Your task to perform on an android device: open app "Booking.com: Hotels and more" (install if not already installed) Image 0: 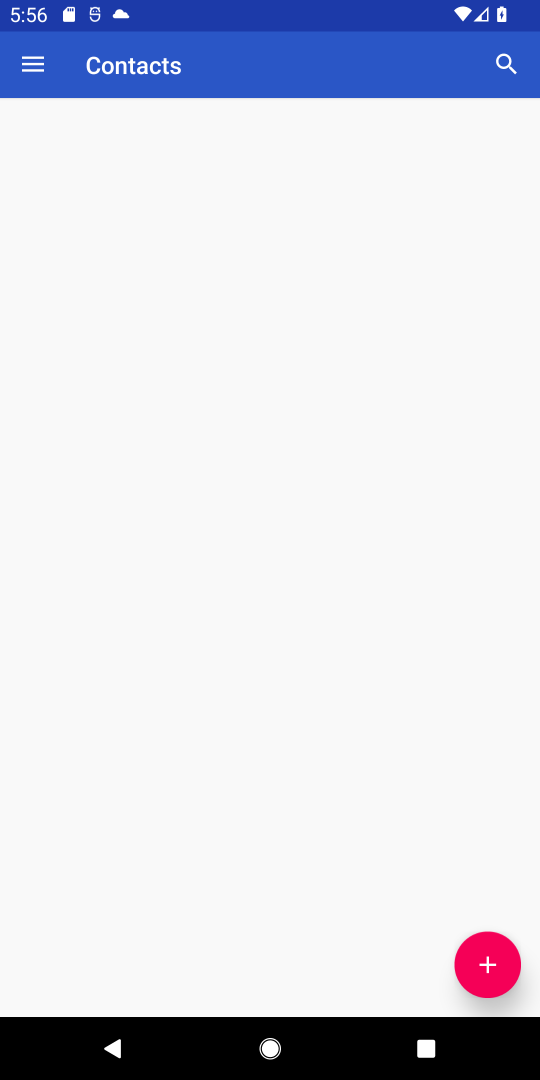
Step 0: press home button
Your task to perform on an android device: open app "Booking.com: Hotels and more" (install if not already installed) Image 1: 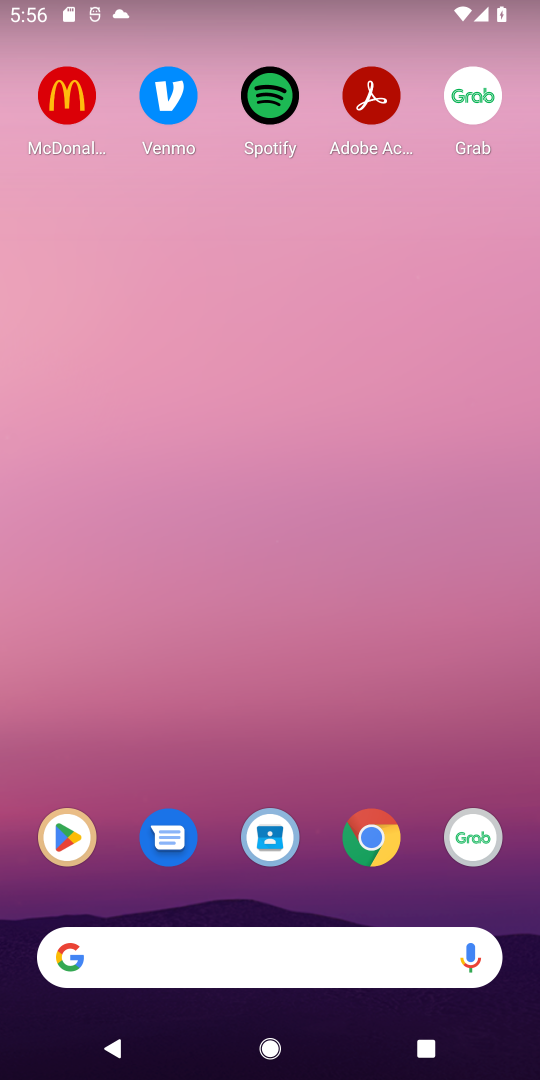
Step 1: click (51, 843)
Your task to perform on an android device: open app "Booking.com: Hotels and more" (install if not already installed) Image 2: 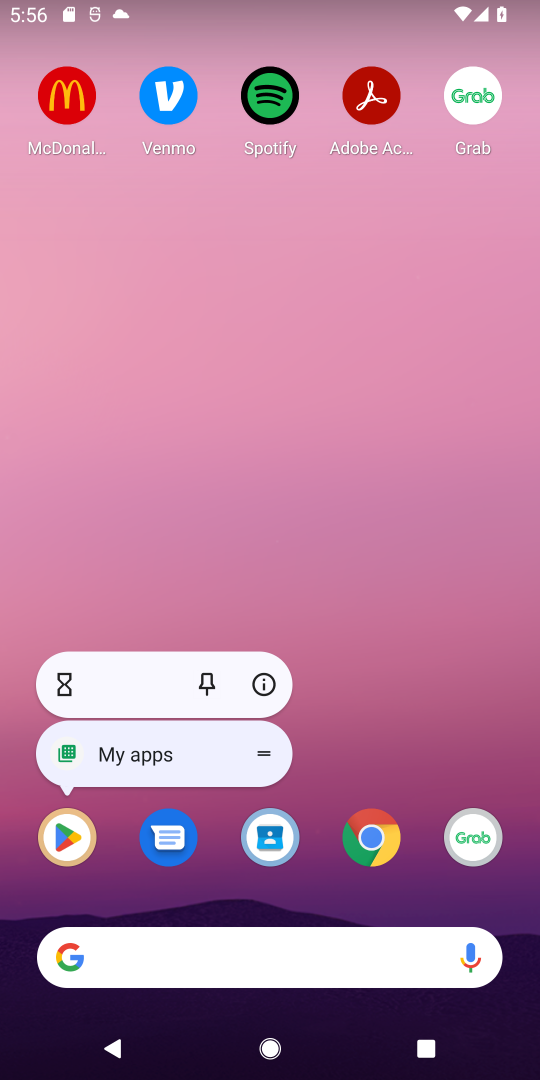
Step 2: click (51, 843)
Your task to perform on an android device: open app "Booking.com: Hotels and more" (install if not already installed) Image 3: 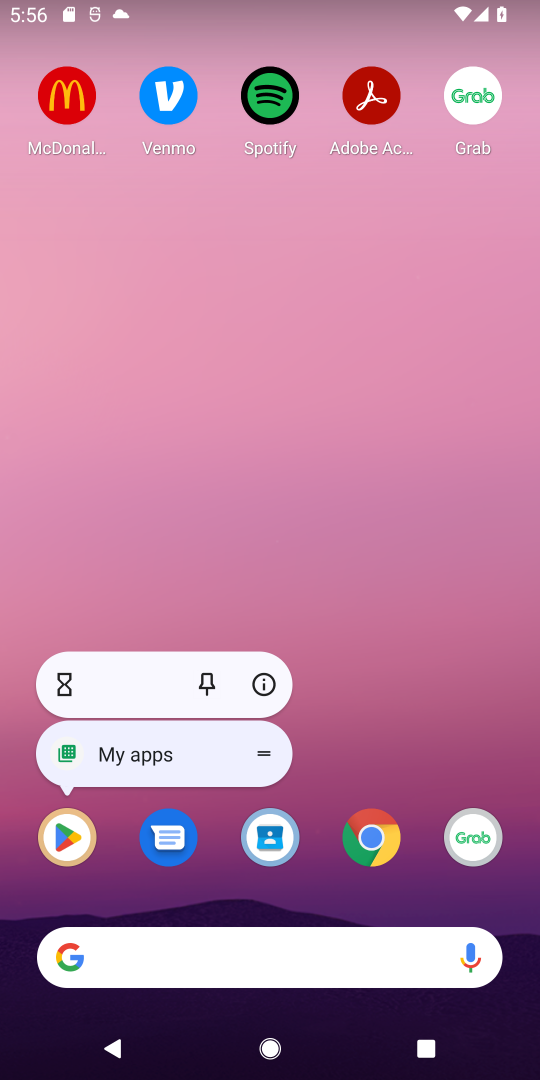
Step 3: click (51, 843)
Your task to perform on an android device: open app "Booking.com: Hotels and more" (install if not already installed) Image 4: 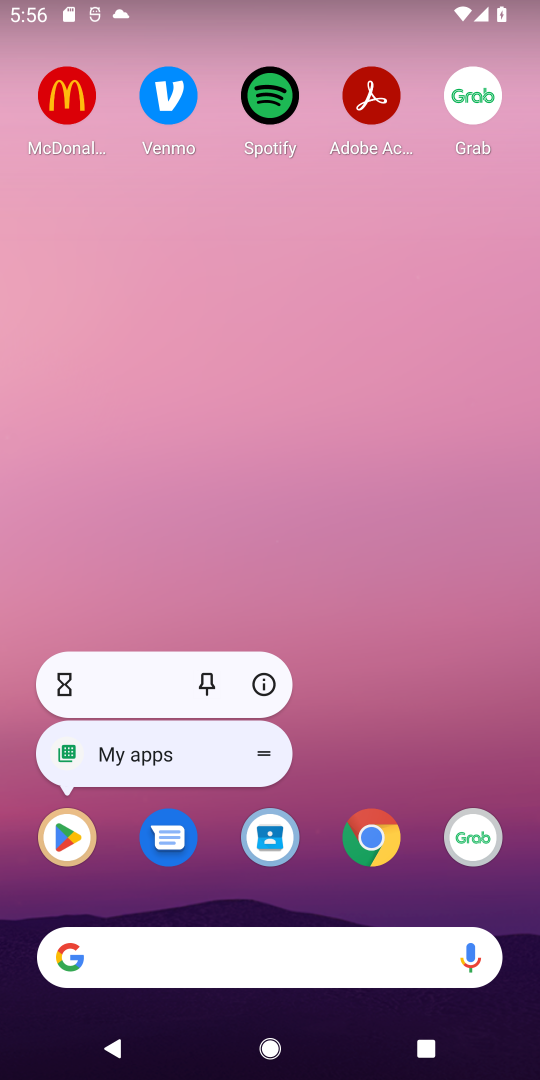
Step 4: click (51, 843)
Your task to perform on an android device: open app "Booking.com: Hotels and more" (install if not already installed) Image 5: 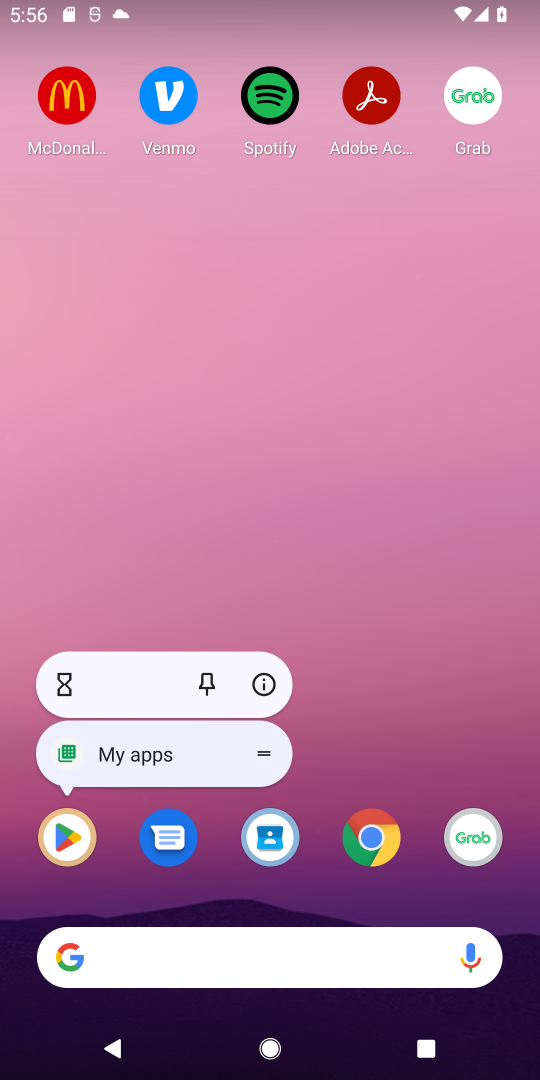
Step 5: click (51, 840)
Your task to perform on an android device: open app "Booking.com: Hotels and more" (install if not already installed) Image 6: 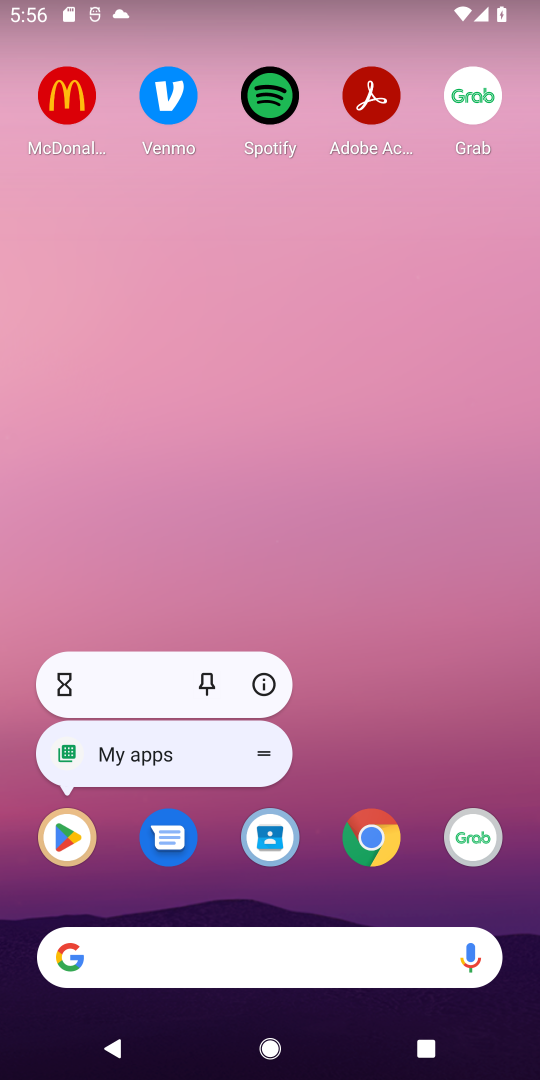
Step 6: click (68, 818)
Your task to perform on an android device: open app "Booking.com: Hotels and more" (install if not already installed) Image 7: 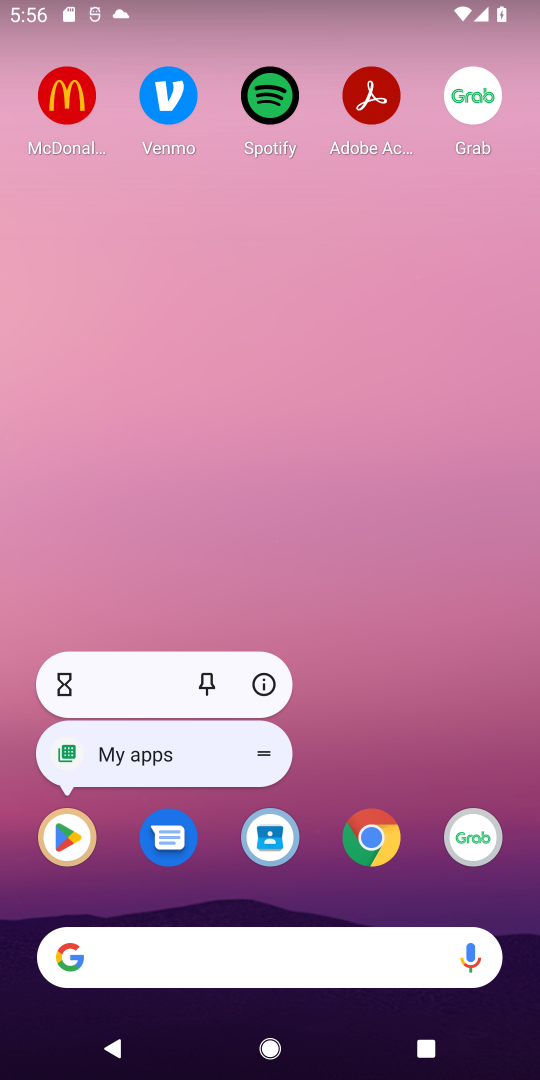
Step 7: click (77, 835)
Your task to perform on an android device: open app "Booking.com: Hotels and more" (install if not already installed) Image 8: 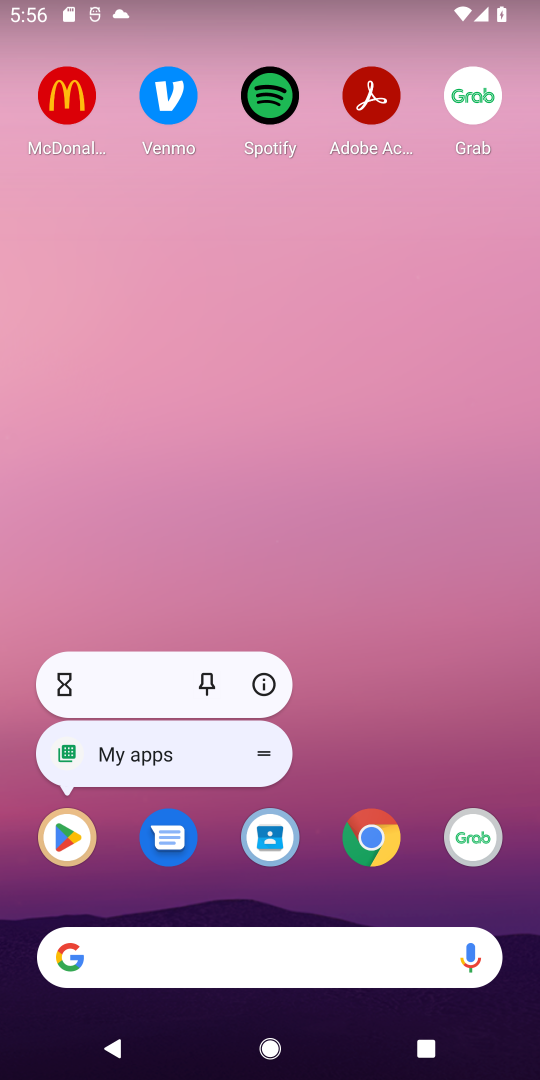
Step 8: click (77, 835)
Your task to perform on an android device: open app "Booking.com: Hotels and more" (install if not already installed) Image 9: 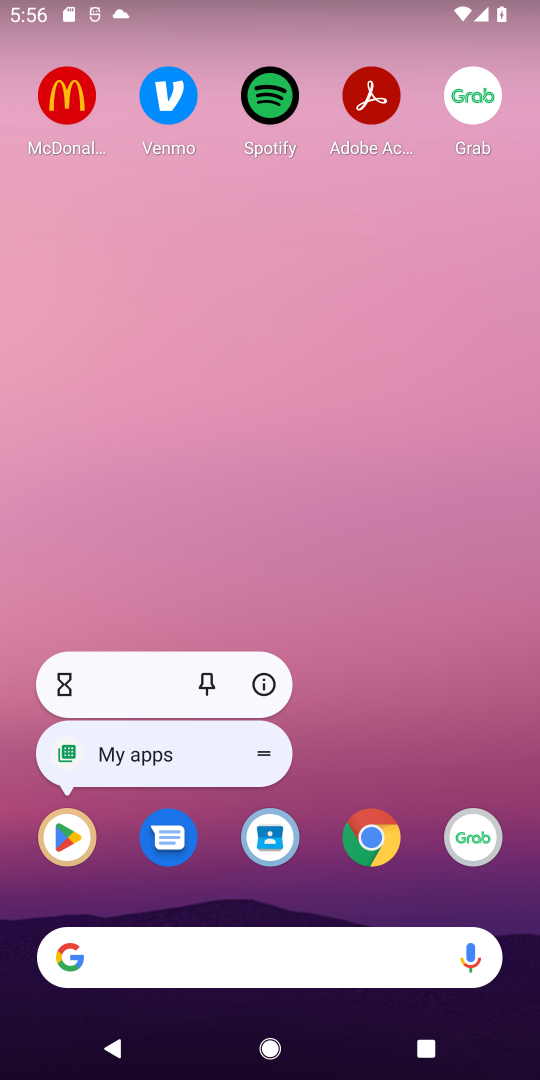
Step 9: click (77, 835)
Your task to perform on an android device: open app "Booking.com: Hotels and more" (install if not already installed) Image 10: 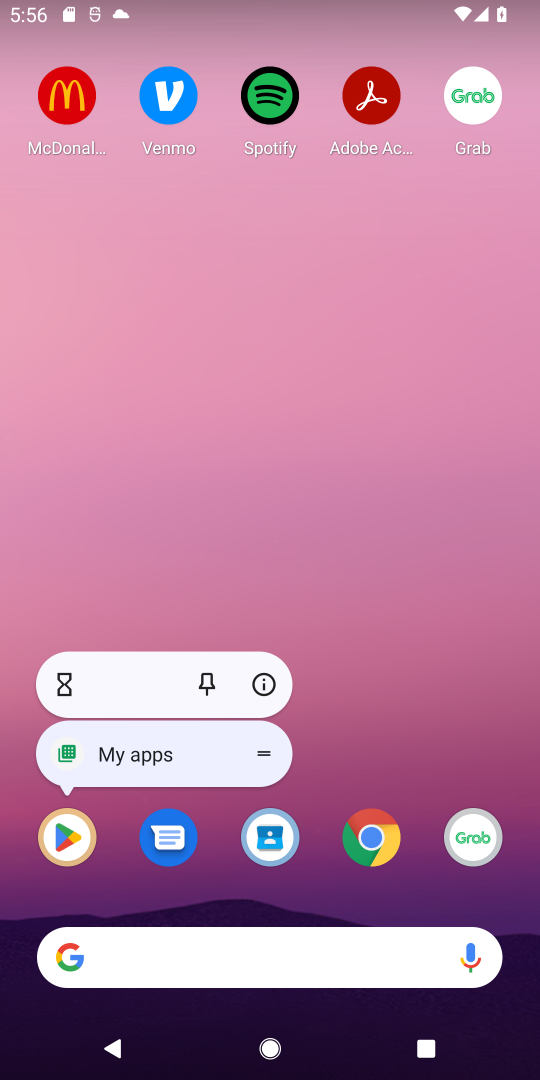
Step 10: click (77, 835)
Your task to perform on an android device: open app "Booking.com: Hotels and more" (install if not already installed) Image 11: 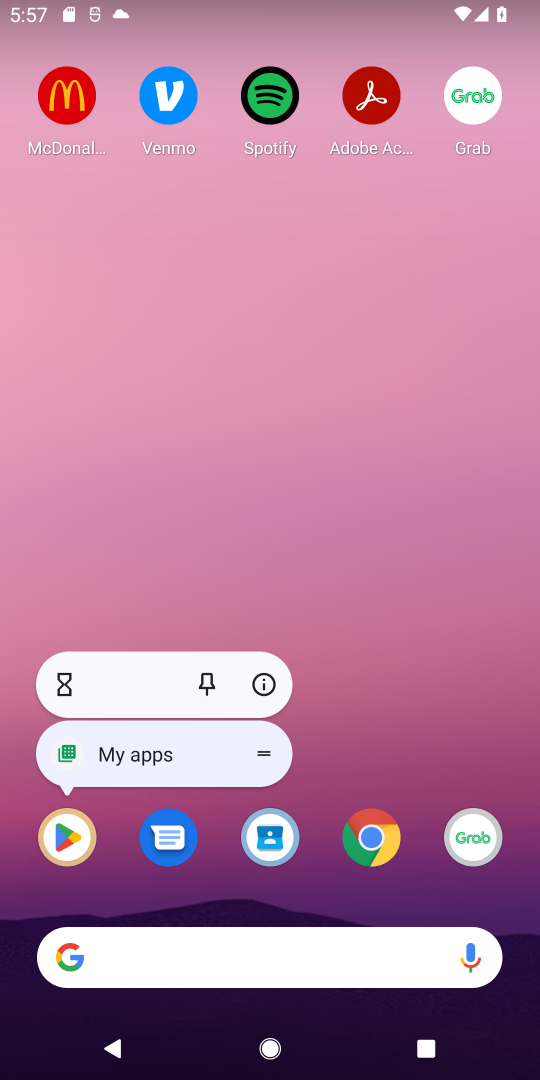
Step 11: click (73, 836)
Your task to perform on an android device: open app "Booking.com: Hotels and more" (install if not already installed) Image 12: 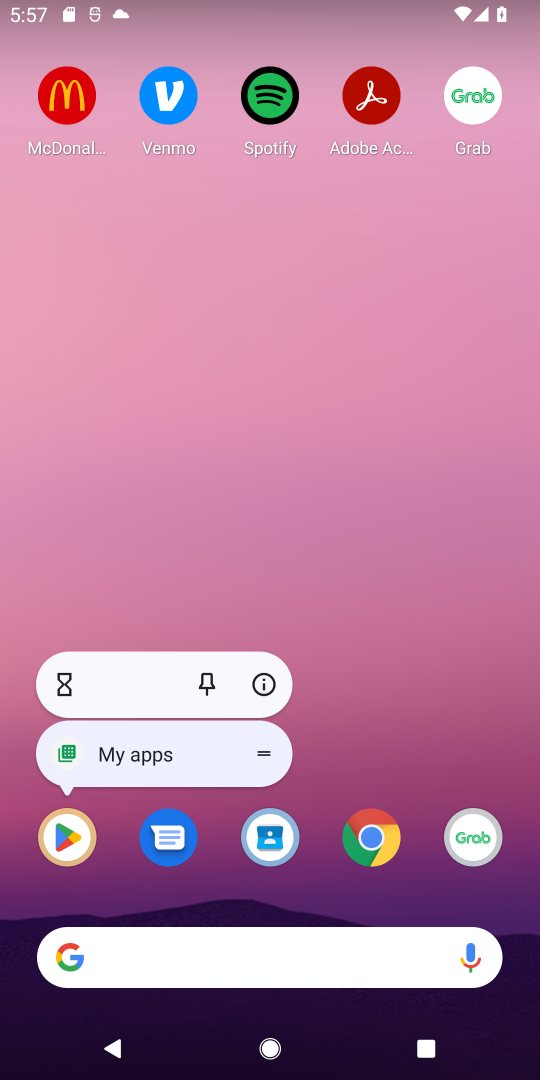
Step 12: click (73, 836)
Your task to perform on an android device: open app "Booking.com: Hotels and more" (install if not already installed) Image 13: 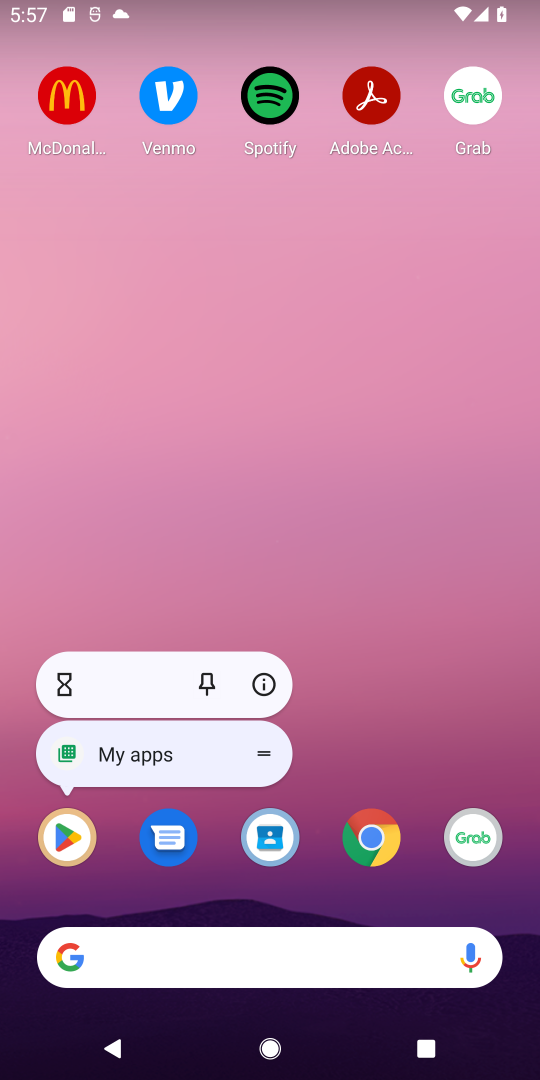
Step 13: click (73, 836)
Your task to perform on an android device: open app "Booking.com: Hotels and more" (install if not already installed) Image 14: 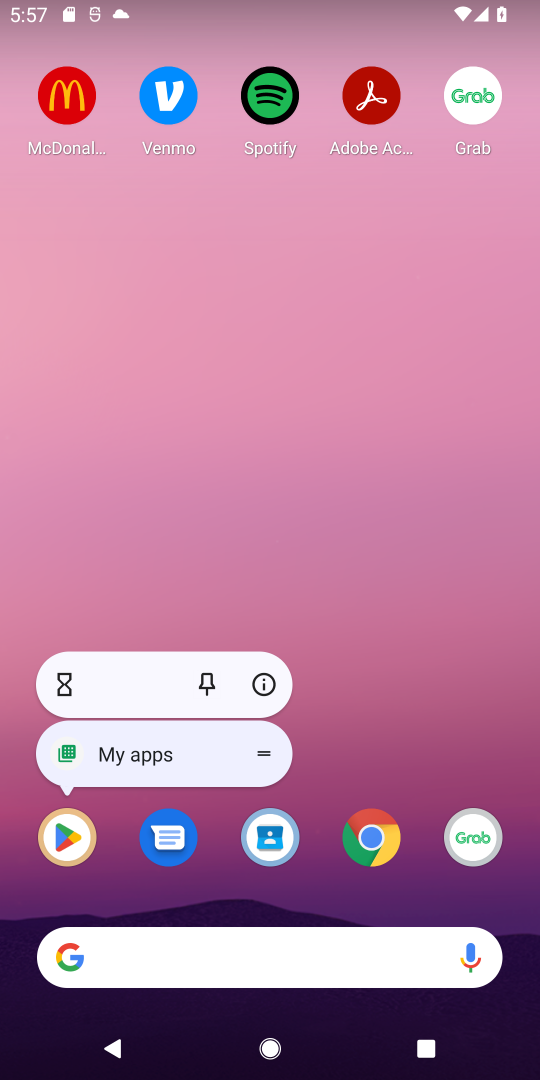
Step 14: click (73, 836)
Your task to perform on an android device: open app "Booking.com: Hotels and more" (install if not already installed) Image 15: 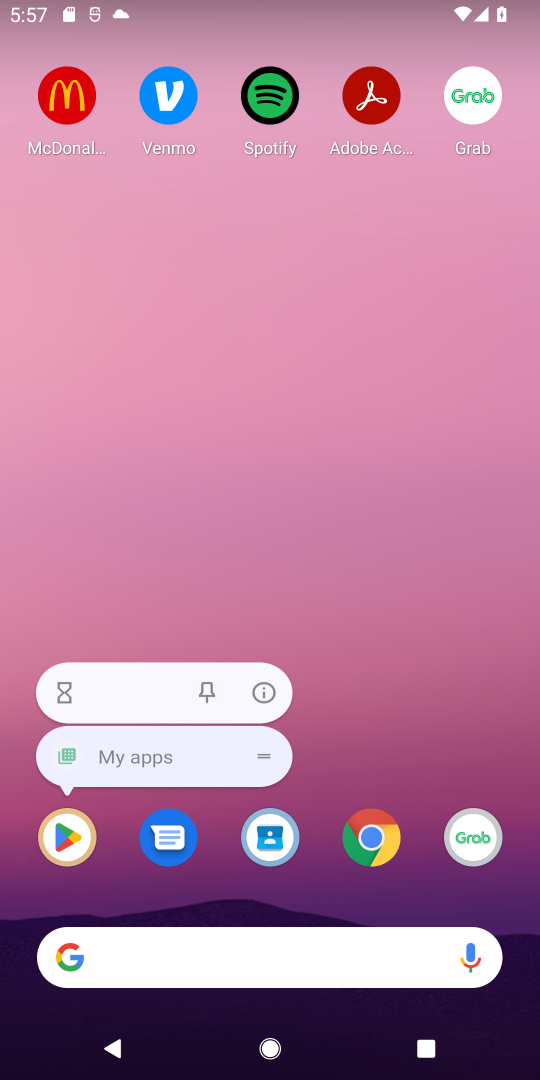
Step 15: click (73, 836)
Your task to perform on an android device: open app "Booking.com: Hotels and more" (install if not already installed) Image 16: 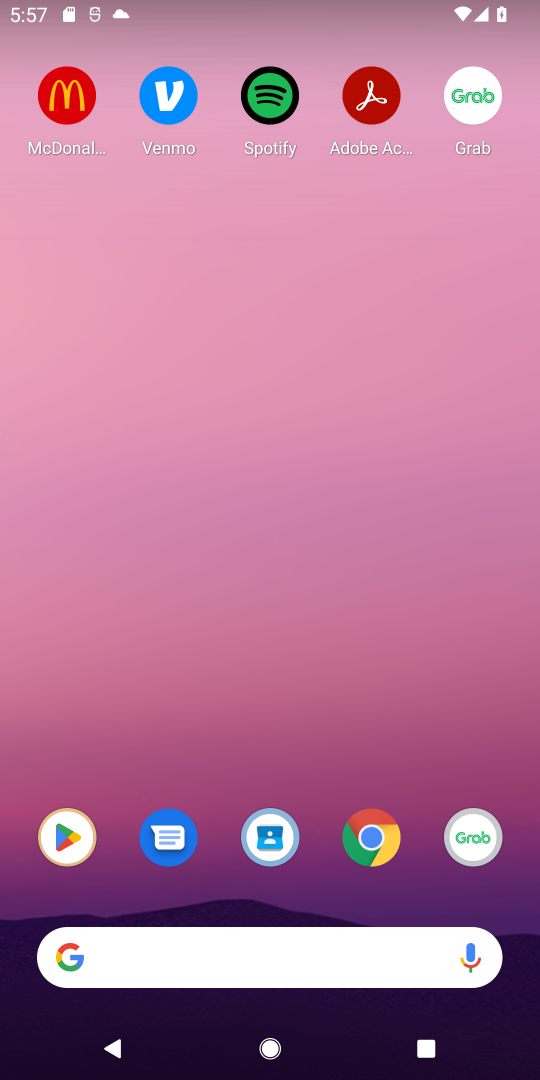
Step 16: click (73, 836)
Your task to perform on an android device: open app "Booking.com: Hotels and more" (install if not already installed) Image 17: 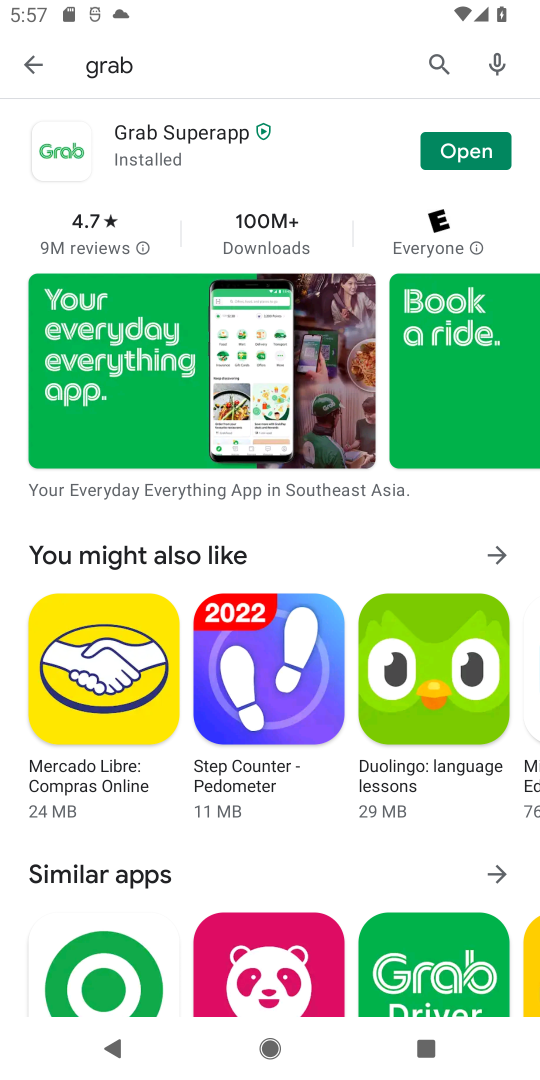
Step 17: click (454, 58)
Your task to perform on an android device: open app "Booking.com: Hotels and more" (install if not already installed) Image 18: 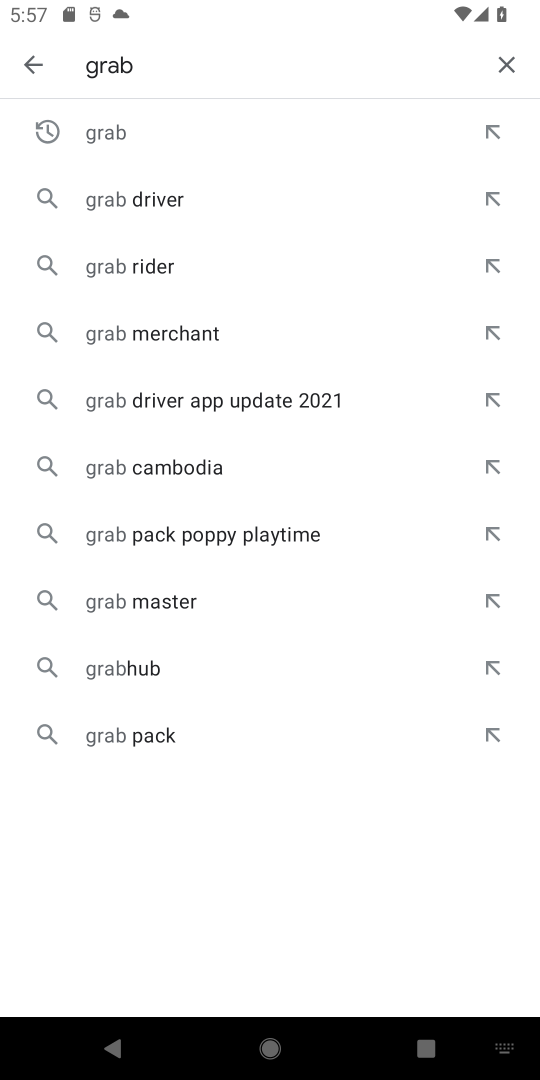
Step 18: click (514, 59)
Your task to perform on an android device: open app "Booking.com: Hotels and more" (install if not already installed) Image 19: 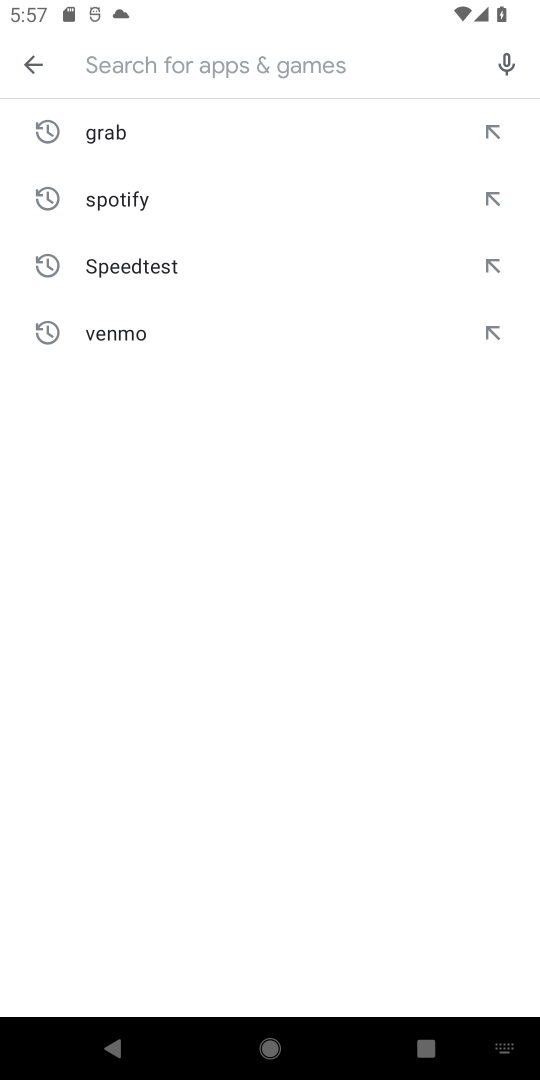
Step 19: press enter
Your task to perform on an android device: open app "Booking.com: Hotels and more" (install if not already installed) Image 20: 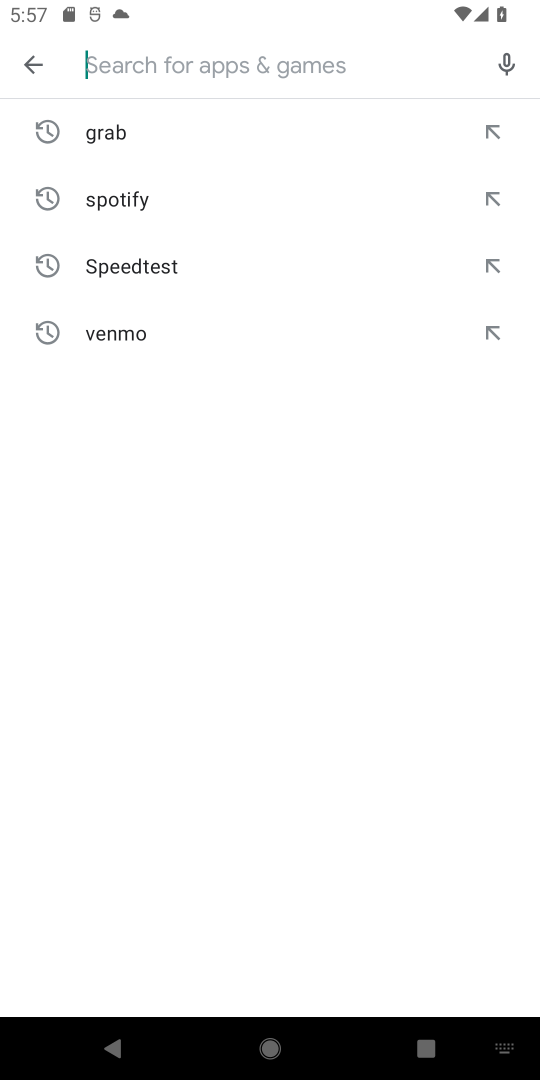
Step 20: type "Booking.com: Hotels and more"
Your task to perform on an android device: open app "Booking.com: Hotels and more" (install if not already installed) Image 21: 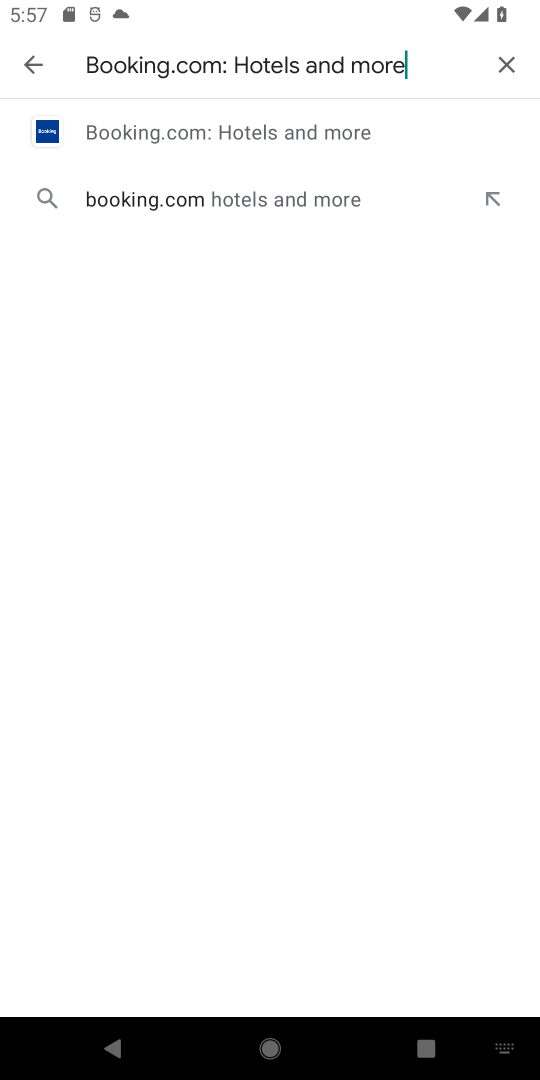
Step 21: click (200, 130)
Your task to perform on an android device: open app "Booking.com: Hotels and more" (install if not already installed) Image 22: 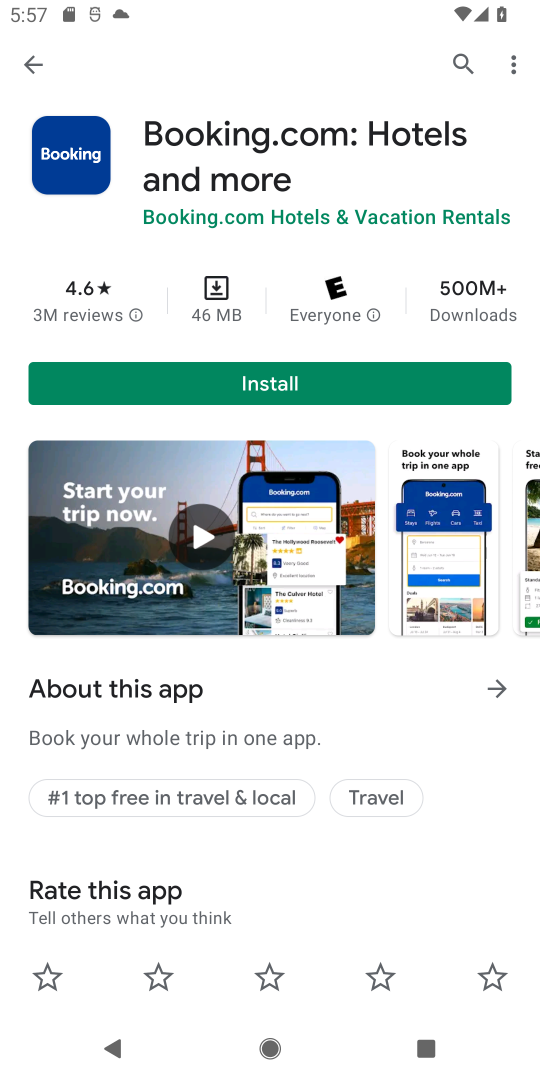
Step 22: click (395, 377)
Your task to perform on an android device: open app "Booking.com: Hotels and more" (install if not already installed) Image 23: 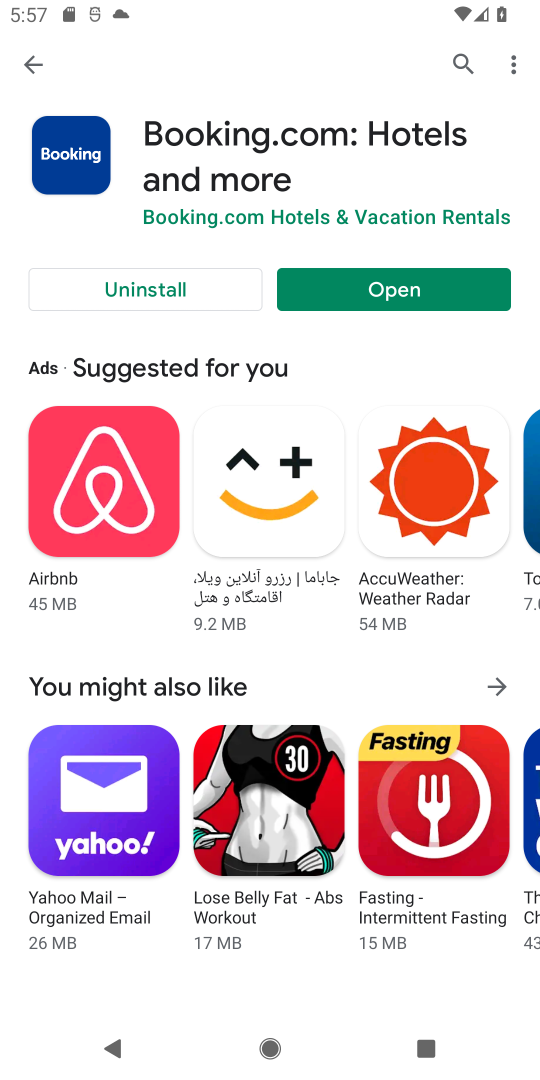
Step 23: click (404, 288)
Your task to perform on an android device: open app "Booking.com: Hotels and more" (install if not already installed) Image 24: 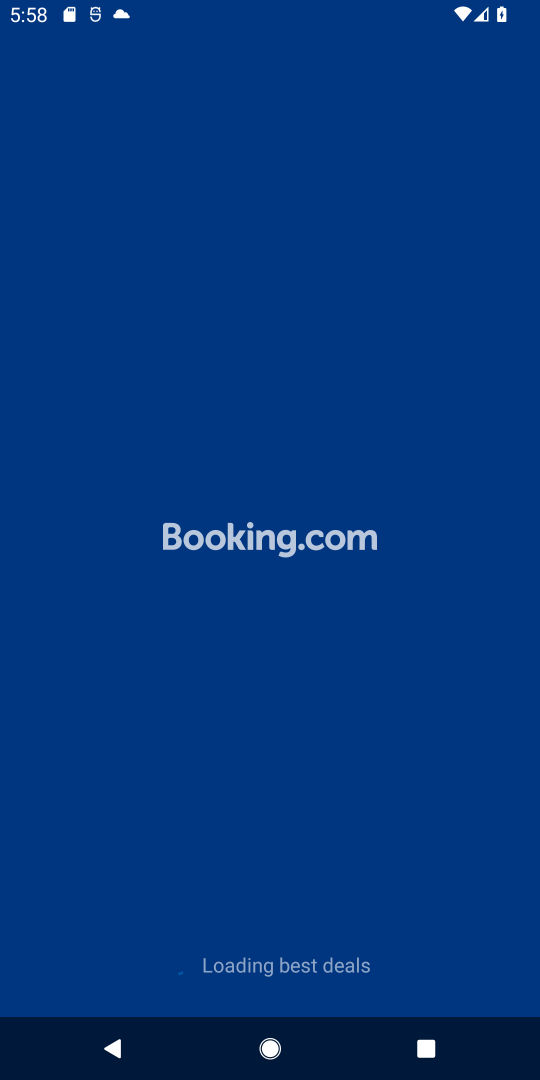
Step 24: task complete